Your task to perform on an android device: set the timer Image 0: 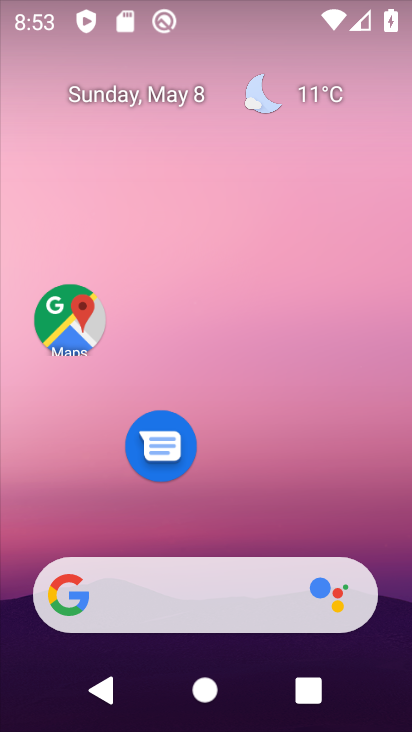
Step 0: drag from (372, 675) to (215, 96)
Your task to perform on an android device: set the timer Image 1: 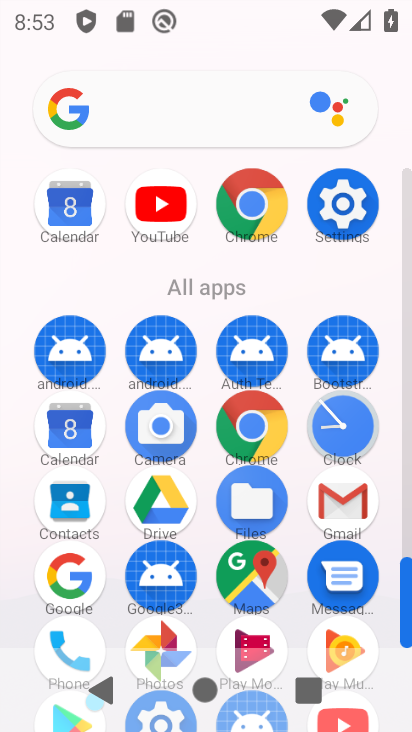
Step 1: drag from (319, 675) to (320, 197)
Your task to perform on an android device: set the timer Image 2: 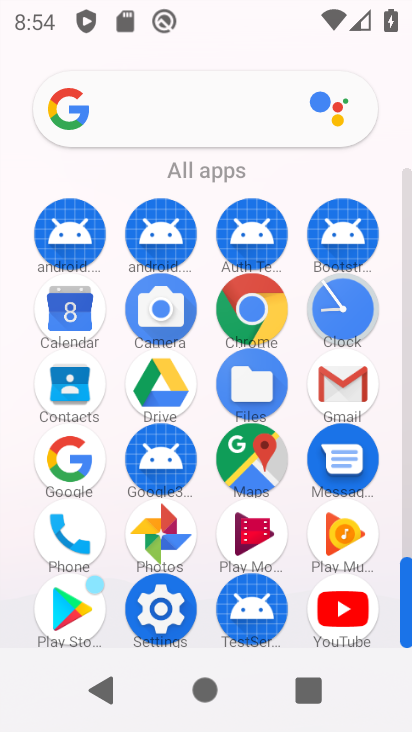
Step 2: click (349, 310)
Your task to perform on an android device: set the timer Image 3: 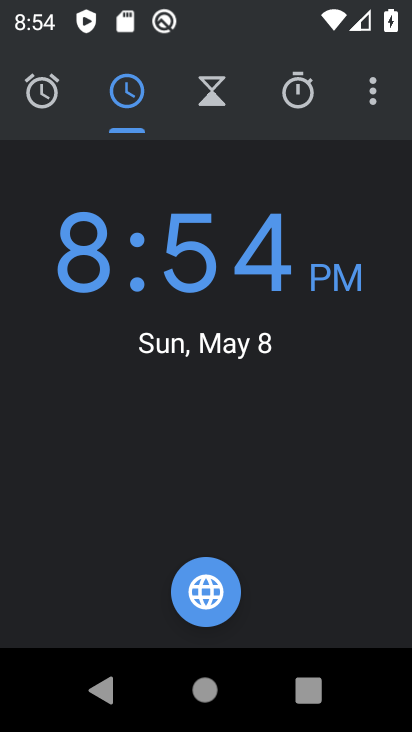
Step 3: click (218, 105)
Your task to perform on an android device: set the timer Image 4: 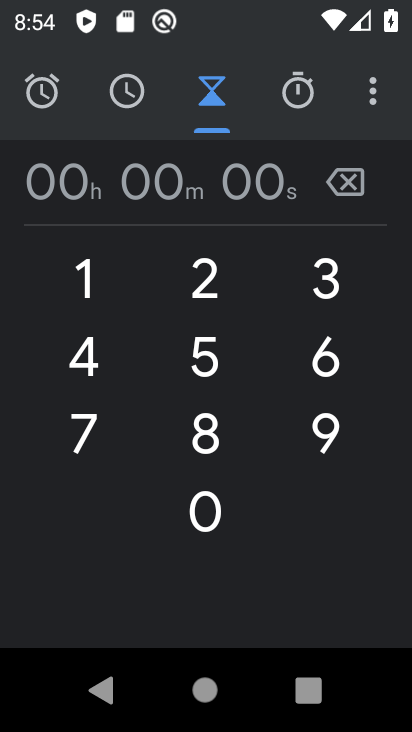
Step 4: click (172, 486)
Your task to perform on an android device: set the timer Image 5: 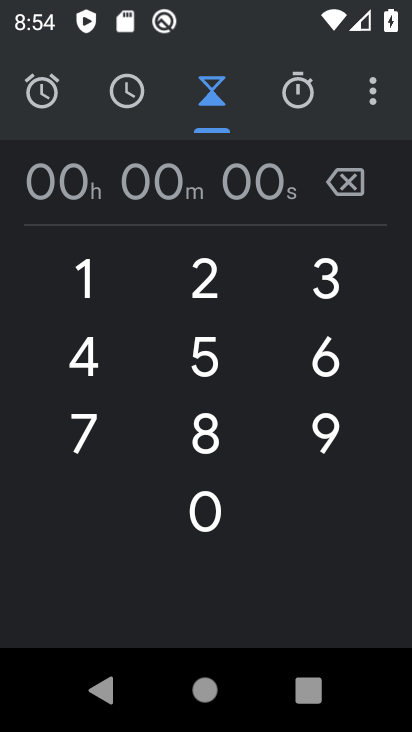
Step 5: click (184, 444)
Your task to perform on an android device: set the timer Image 6: 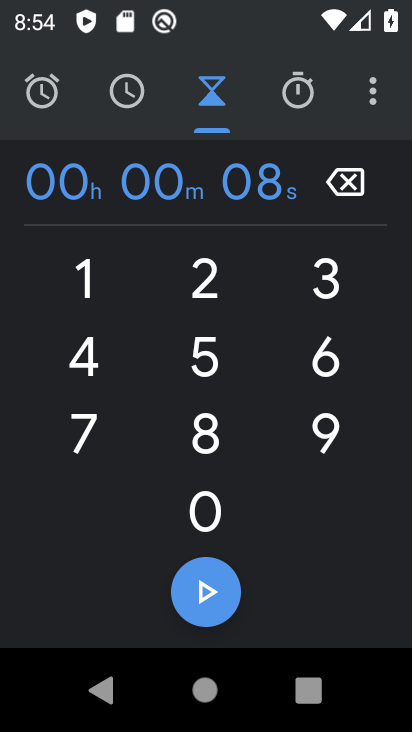
Step 6: click (212, 607)
Your task to perform on an android device: set the timer Image 7: 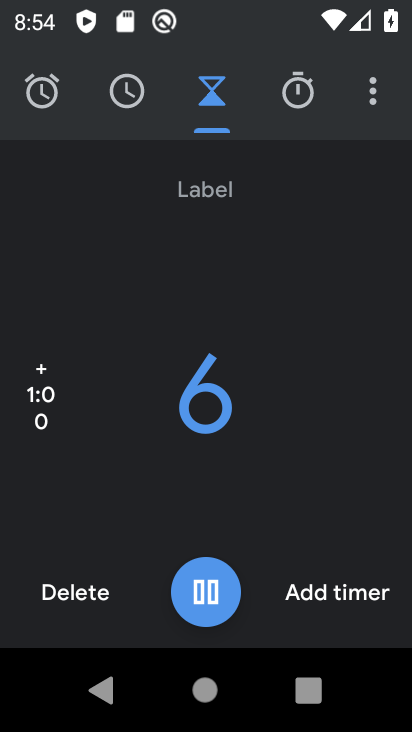
Step 7: task complete